Your task to perform on an android device: Open Maps and search for coffee Image 0: 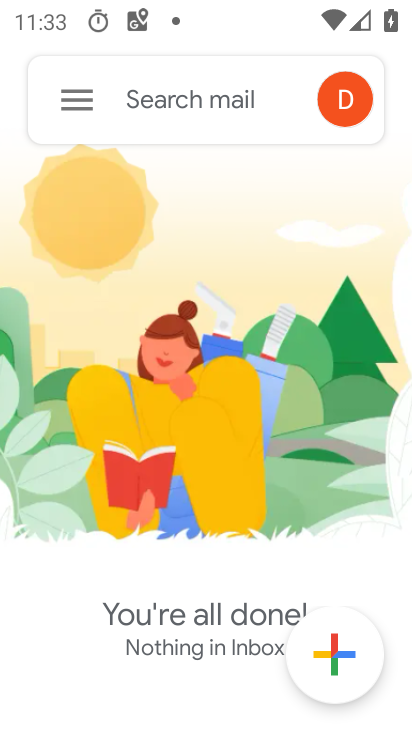
Step 0: press home button
Your task to perform on an android device: Open Maps and search for coffee Image 1: 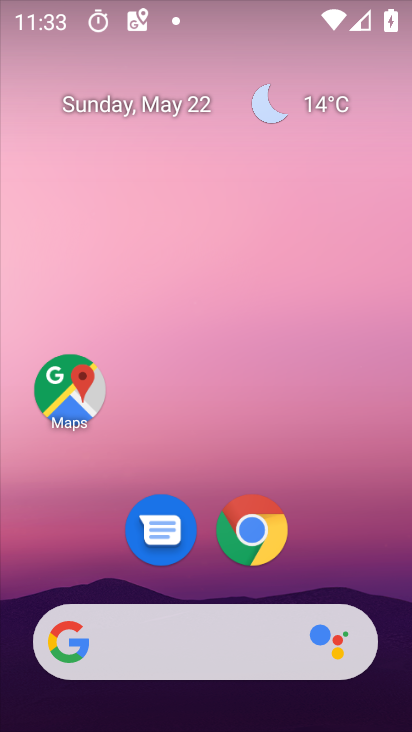
Step 1: click (56, 370)
Your task to perform on an android device: Open Maps and search for coffee Image 2: 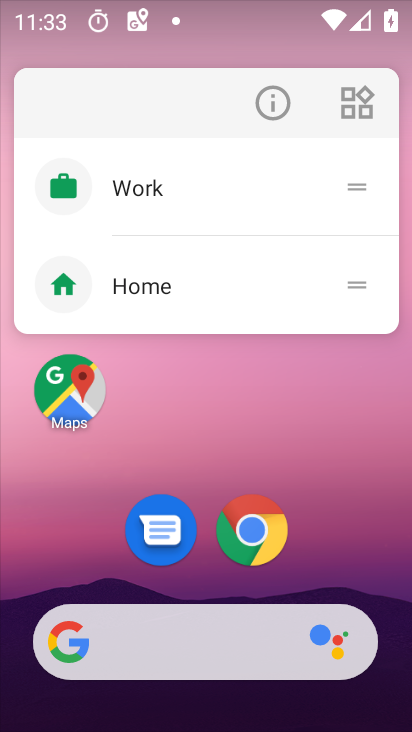
Step 2: click (83, 382)
Your task to perform on an android device: Open Maps and search for coffee Image 3: 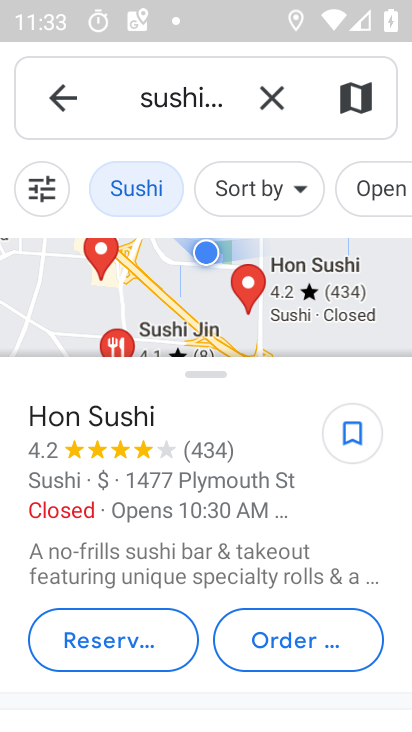
Step 3: click (273, 99)
Your task to perform on an android device: Open Maps and search for coffee Image 4: 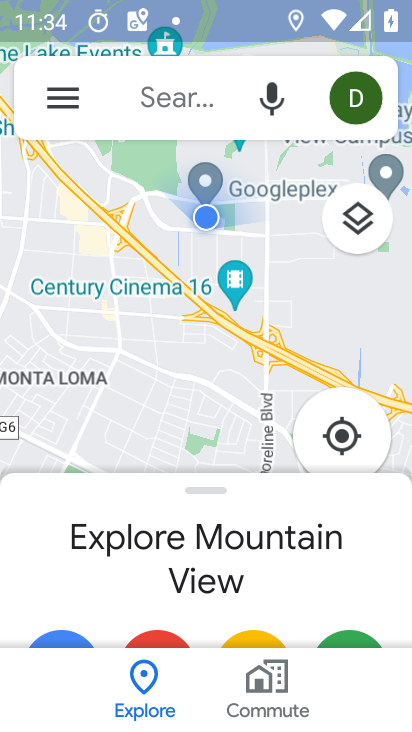
Step 4: click (179, 84)
Your task to perform on an android device: Open Maps and search for coffee Image 5: 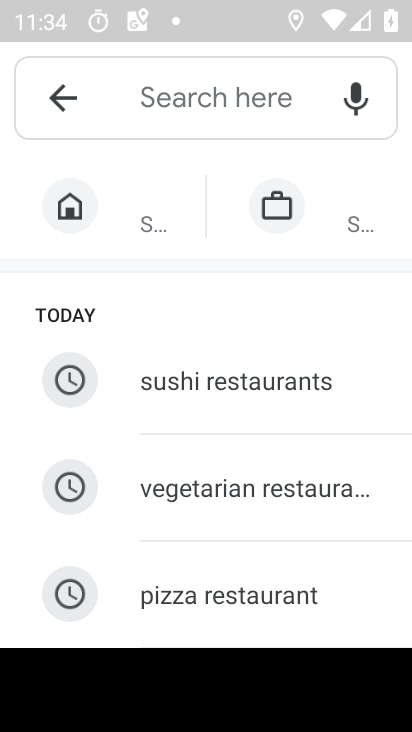
Step 5: type "coffee"
Your task to perform on an android device: Open Maps and search for coffee Image 6: 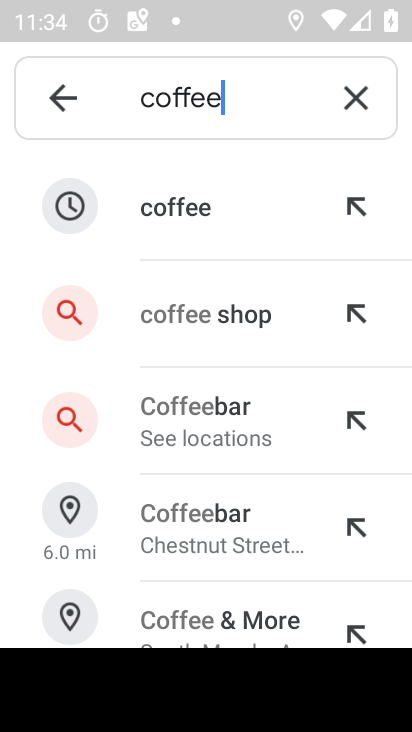
Step 6: click (189, 314)
Your task to perform on an android device: Open Maps and search for coffee Image 7: 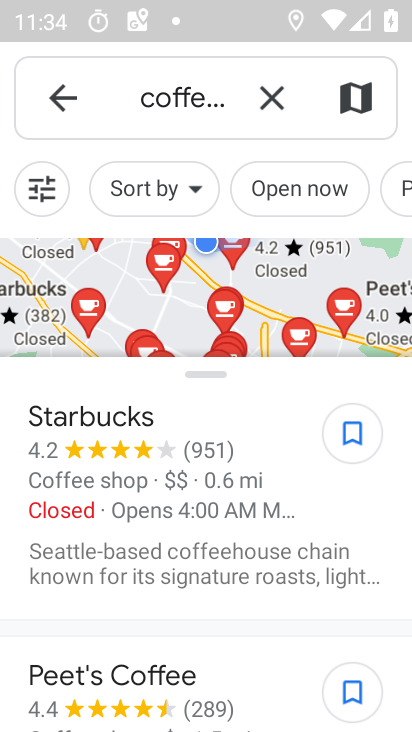
Step 7: task complete